Your task to perform on an android device: uninstall "Airtel Thanks" Image 0: 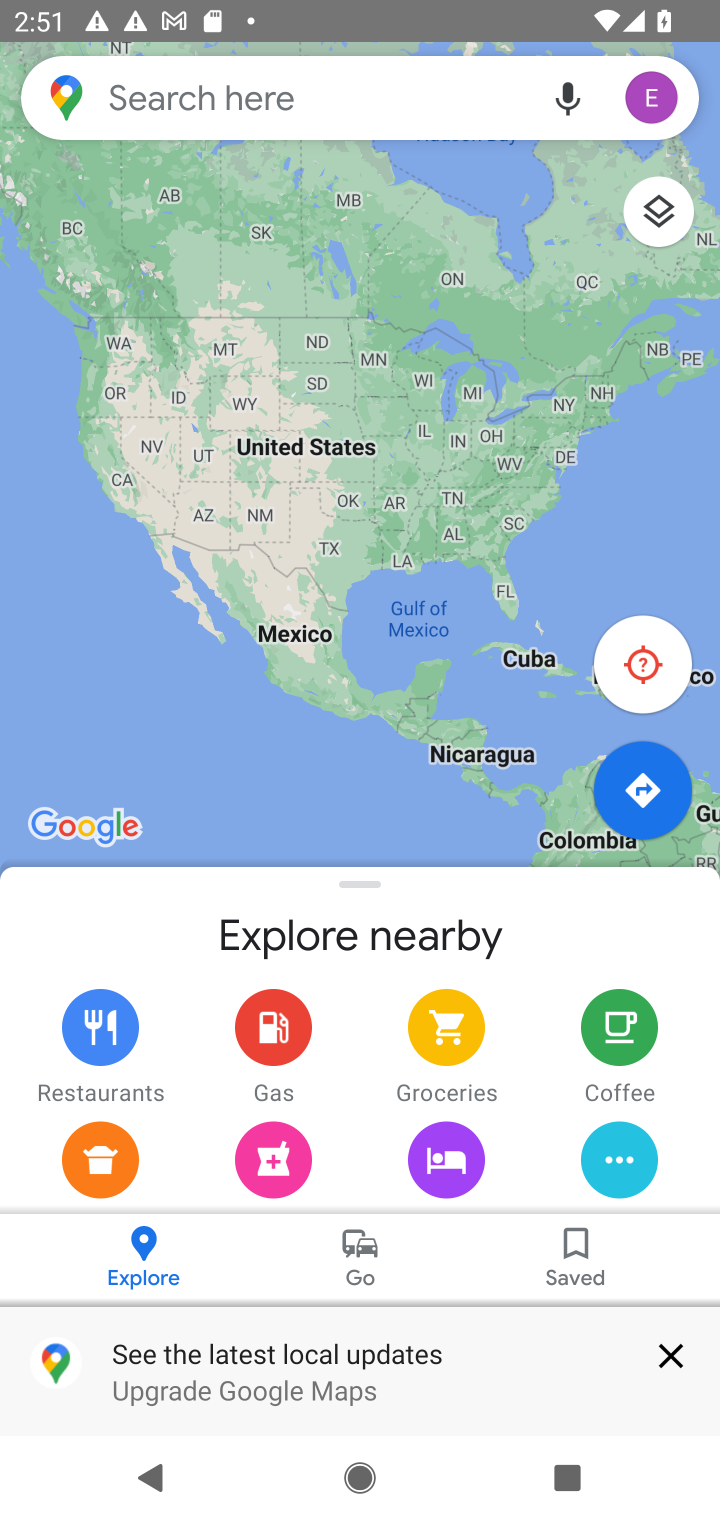
Step 0: press home button
Your task to perform on an android device: uninstall "Airtel Thanks" Image 1: 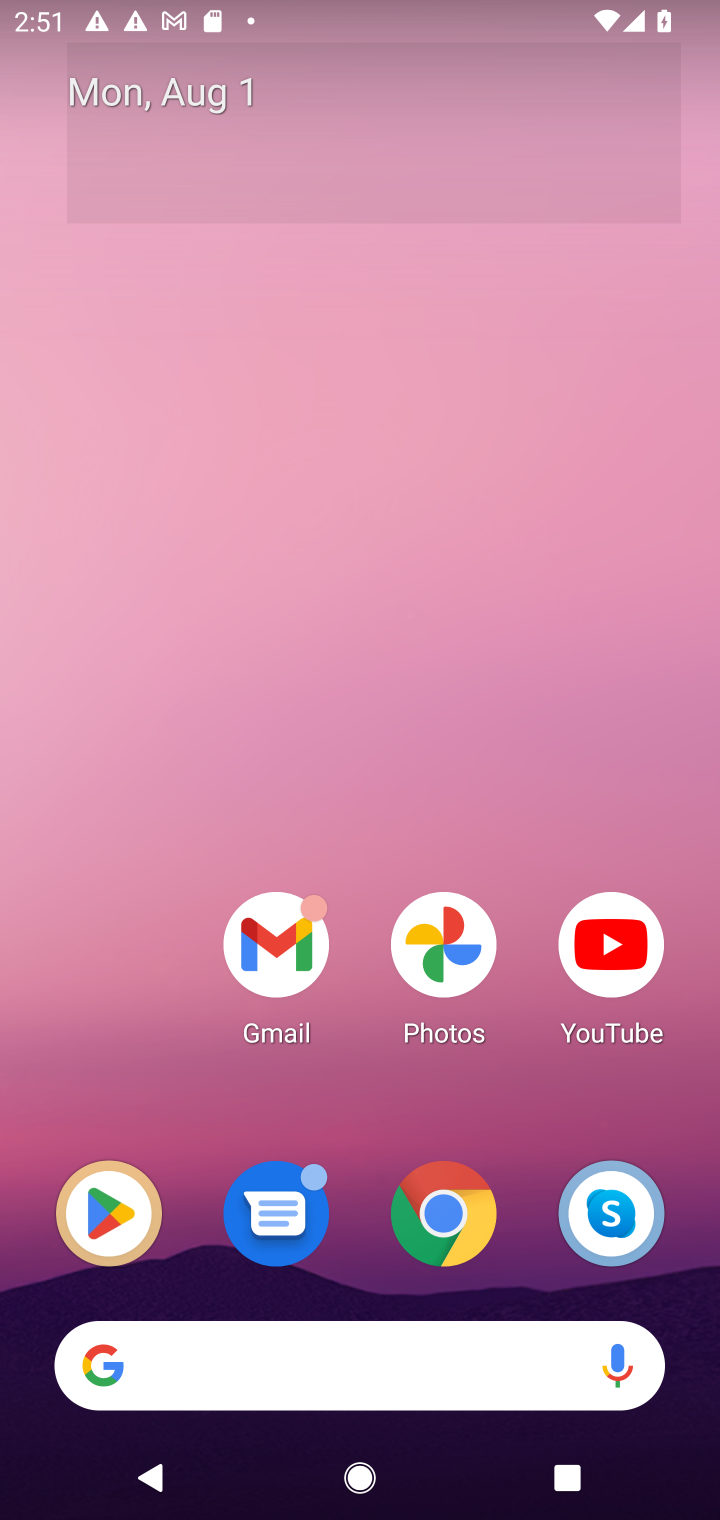
Step 1: drag from (529, 1045) to (557, 109)
Your task to perform on an android device: uninstall "Airtel Thanks" Image 2: 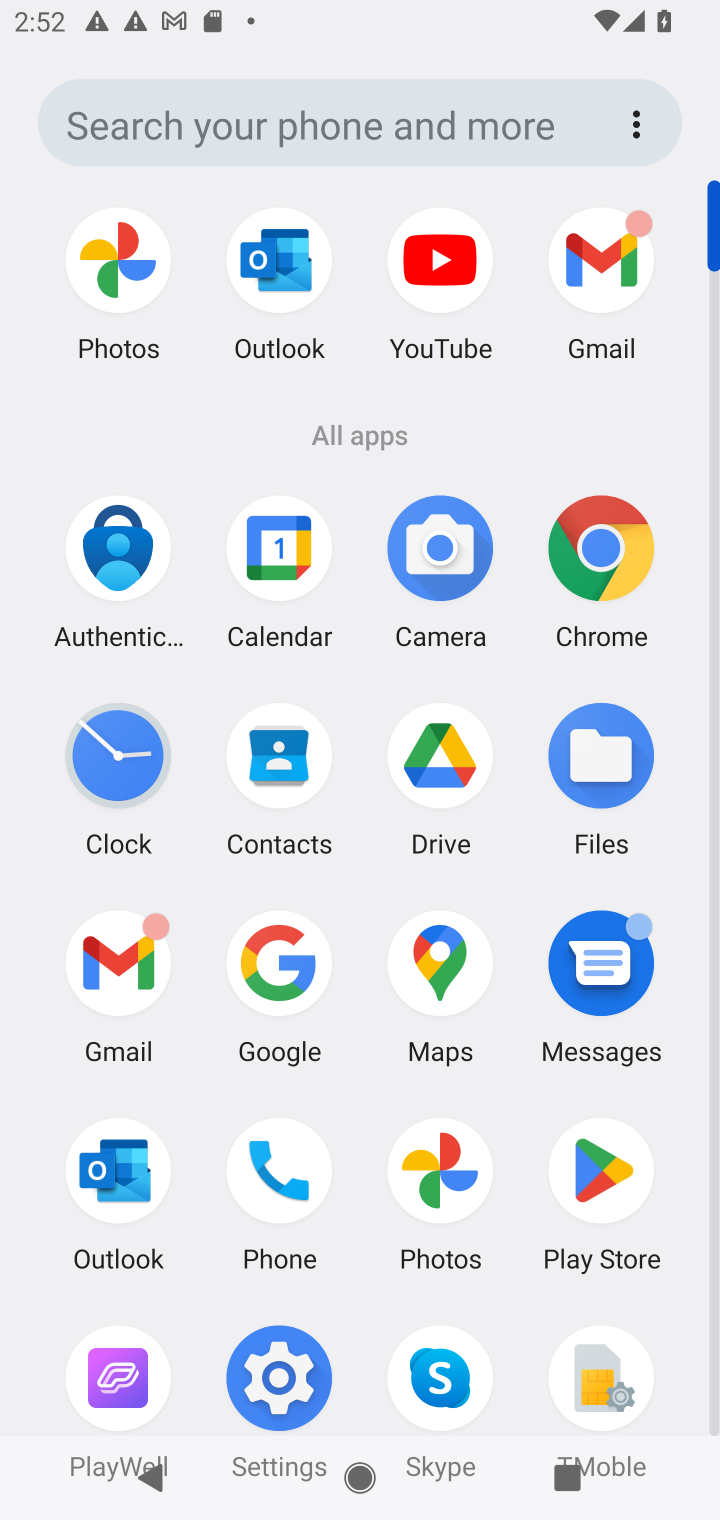
Step 2: click (595, 1159)
Your task to perform on an android device: uninstall "Airtel Thanks" Image 3: 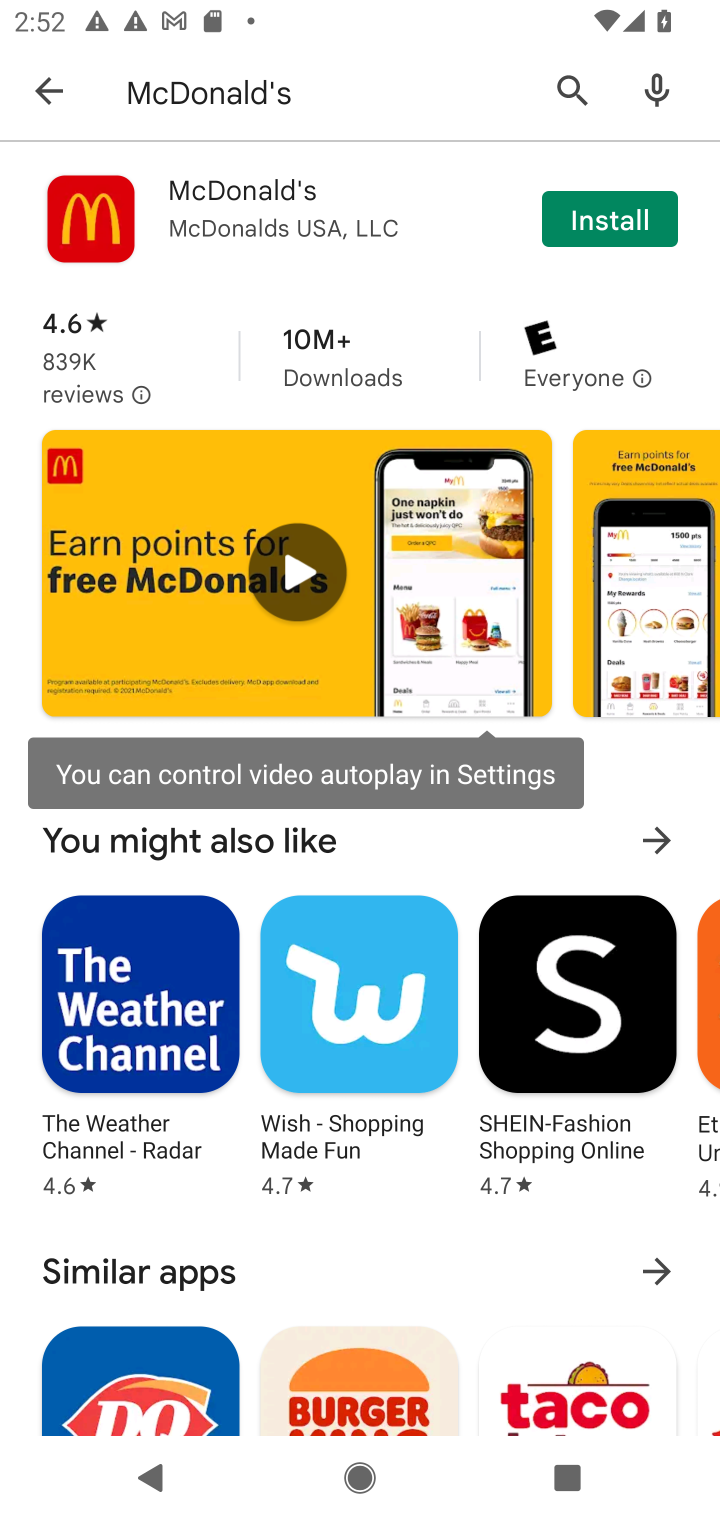
Step 3: click (302, 59)
Your task to perform on an android device: uninstall "Airtel Thanks" Image 4: 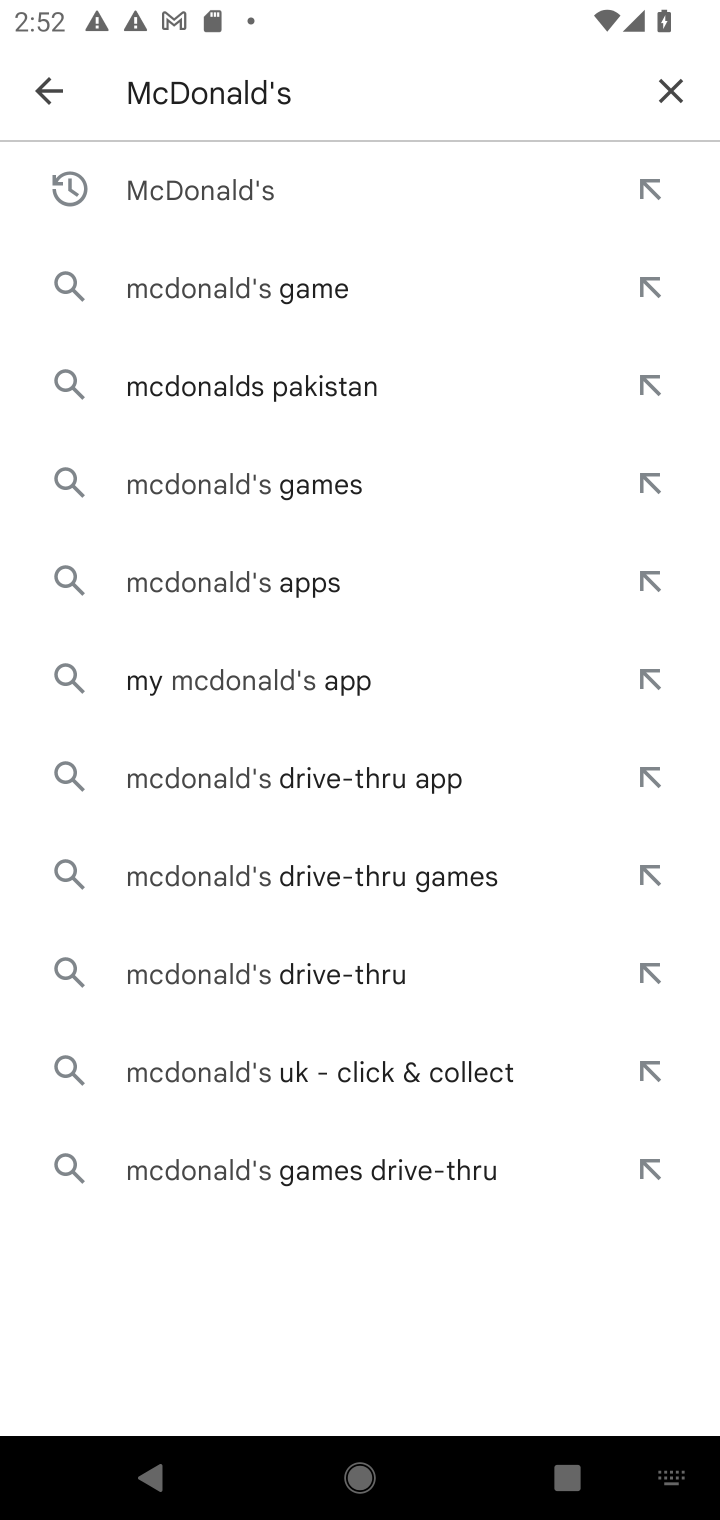
Step 4: click (663, 87)
Your task to perform on an android device: uninstall "Airtel Thanks" Image 5: 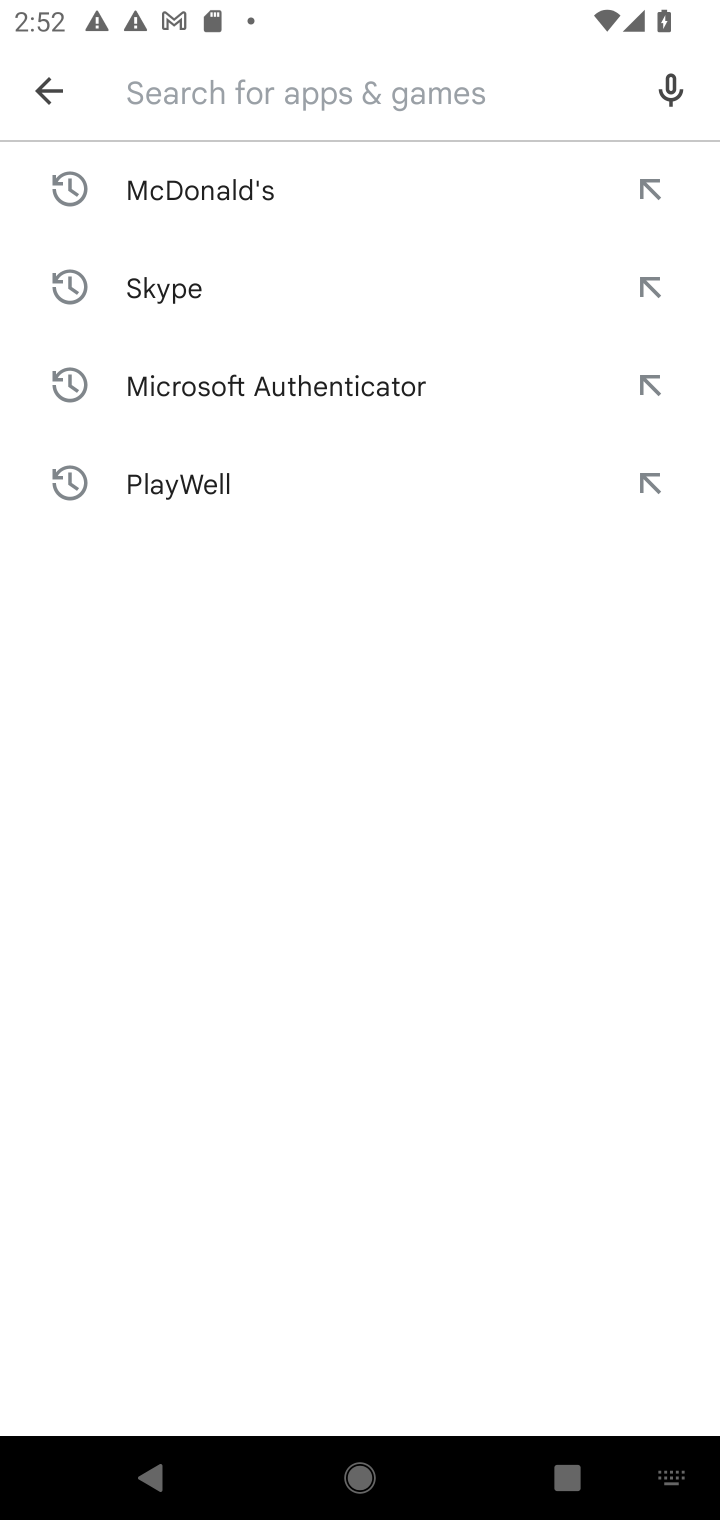
Step 5: type "Airtel Thanks"
Your task to perform on an android device: uninstall "Airtel Thanks" Image 6: 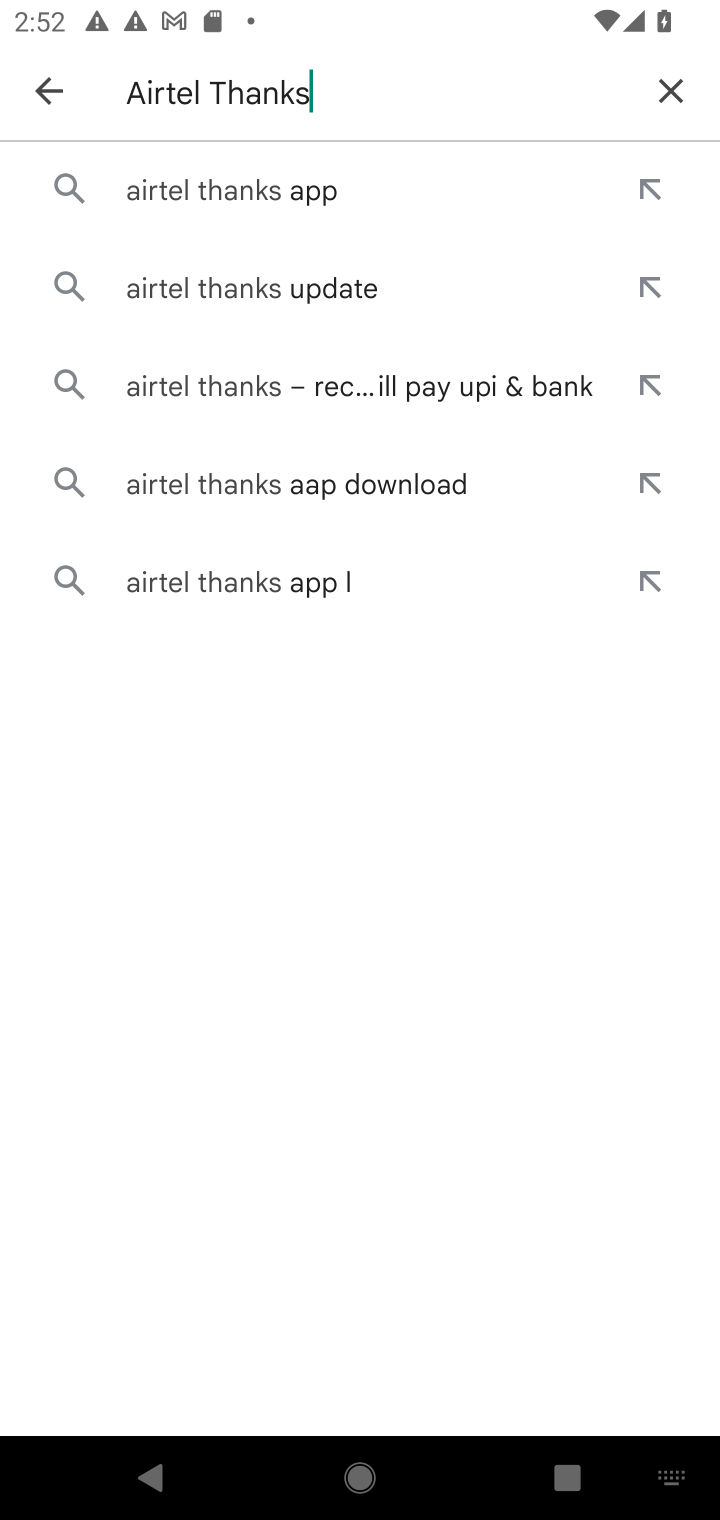
Step 6: press enter
Your task to perform on an android device: uninstall "Airtel Thanks" Image 7: 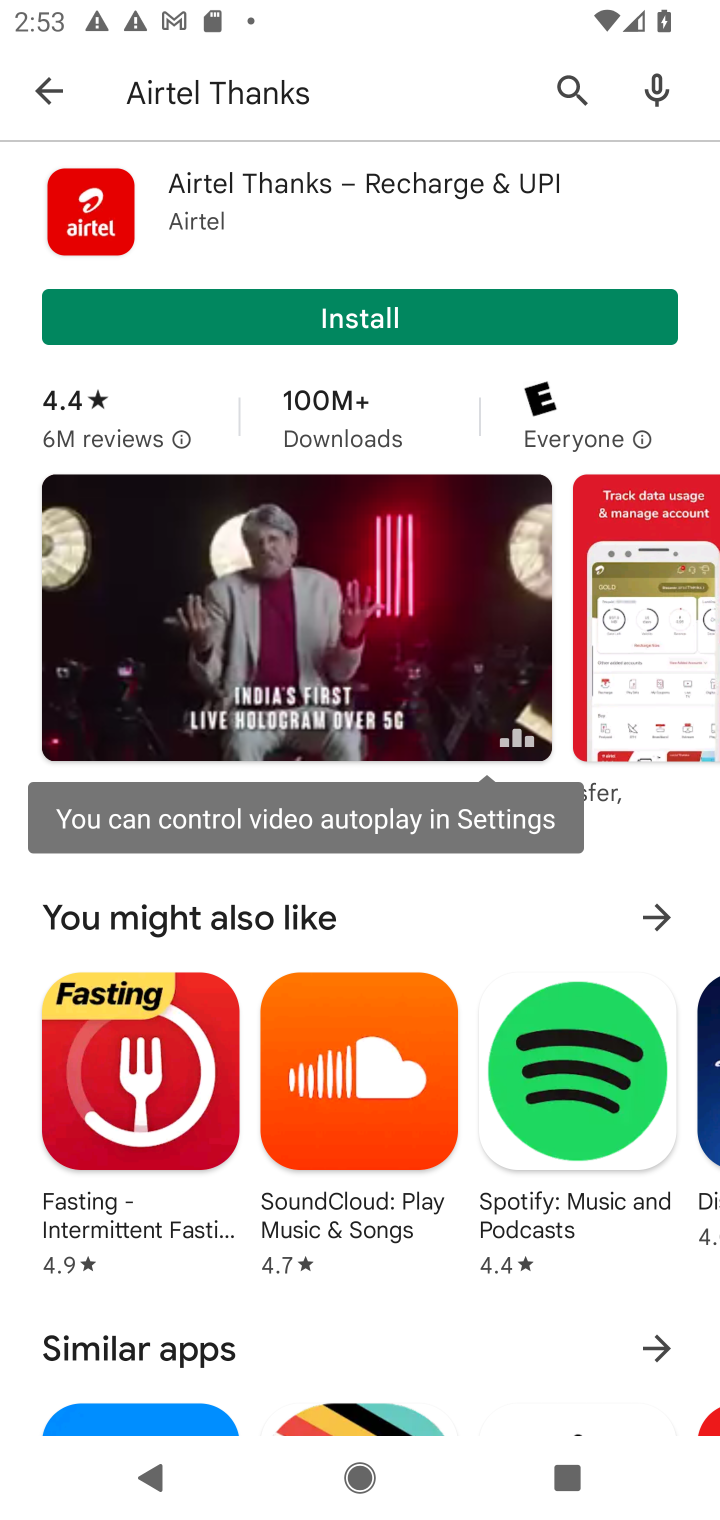
Step 7: task complete